Your task to perform on an android device: Open location settings Image 0: 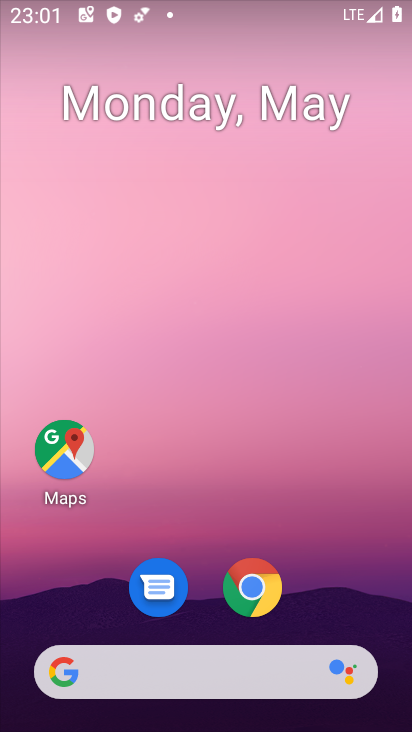
Step 0: drag from (198, 667) to (132, 39)
Your task to perform on an android device: Open location settings Image 1: 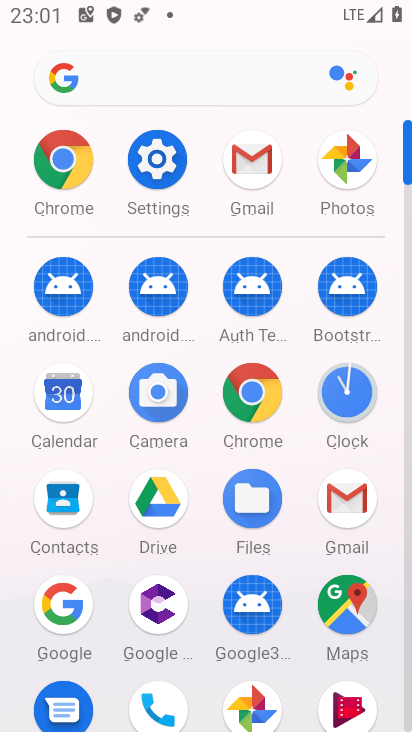
Step 1: click (161, 169)
Your task to perform on an android device: Open location settings Image 2: 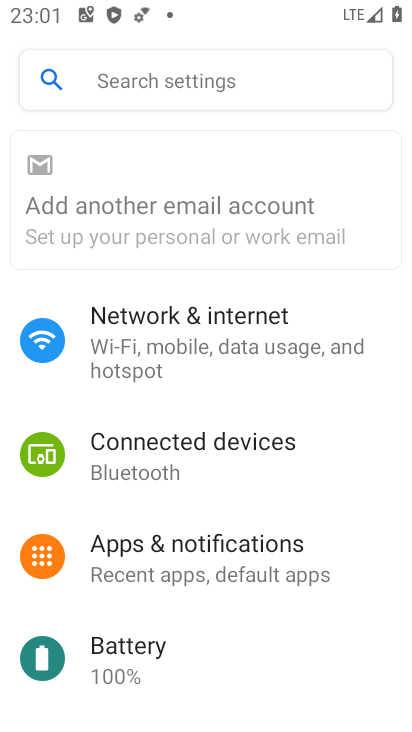
Step 2: drag from (238, 590) to (181, 89)
Your task to perform on an android device: Open location settings Image 3: 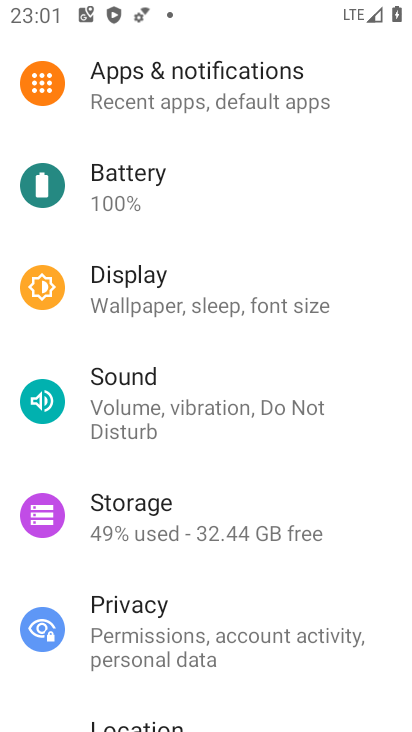
Step 3: drag from (190, 588) to (169, 326)
Your task to perform on an android device: Open location settings Image 4: 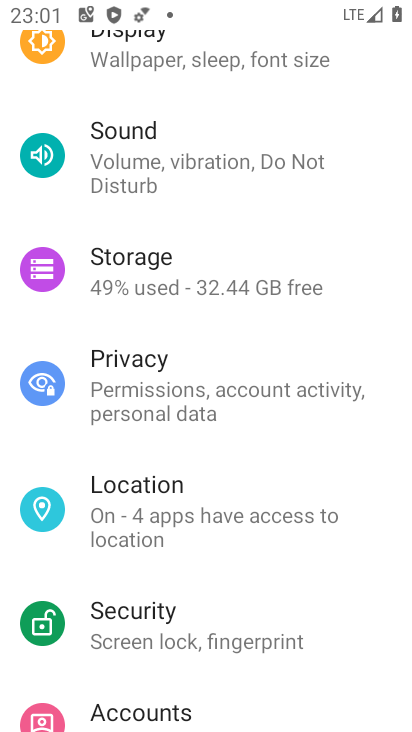
Step 4: click (152, 493)
Your task to perform on an android device: Open location settings Image 5: 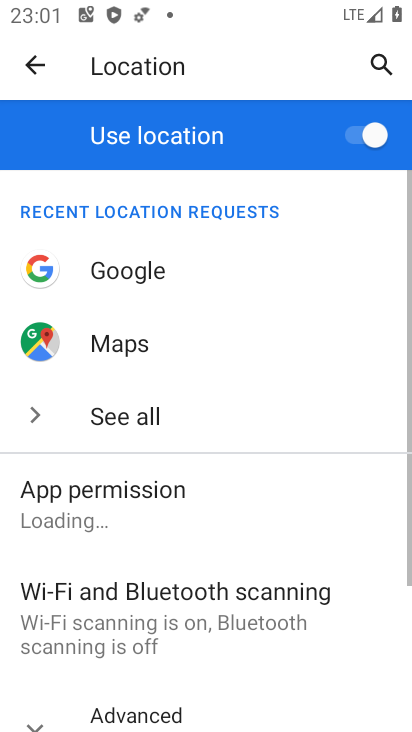
Step 5: drag from (217, 647) to (188, 139)
Your task to perform on an android device: Open location settings Image 6: 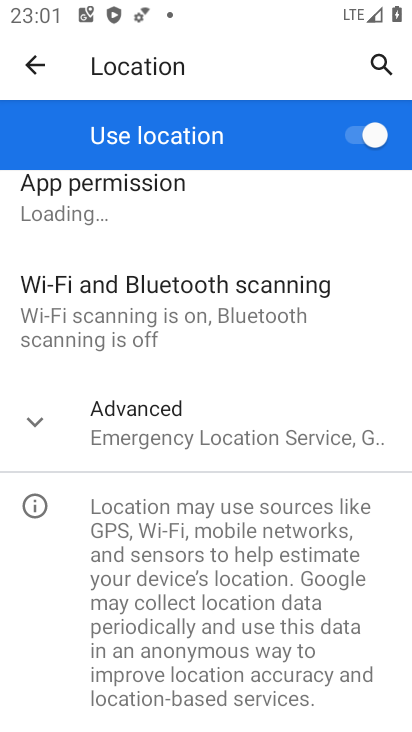
Step 6: click (159, 424)
Your task to perform on an android device: Open location settings Image 7: 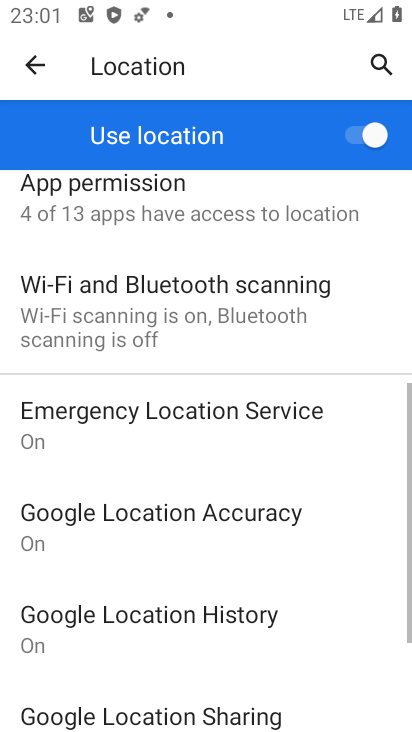
Step 7: task complete